Your task to perform on an android device: Open ESPN.com Image 0: 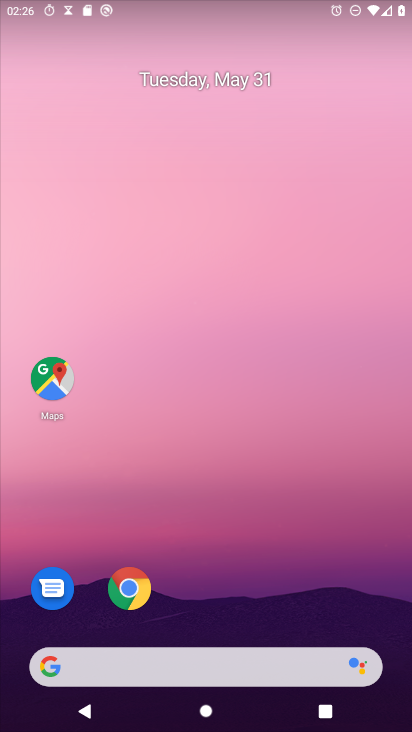
Step 0: drag from (184, 671) to (234, 0)
Your task to perform on an android device: Open ESPN.com Image 1: 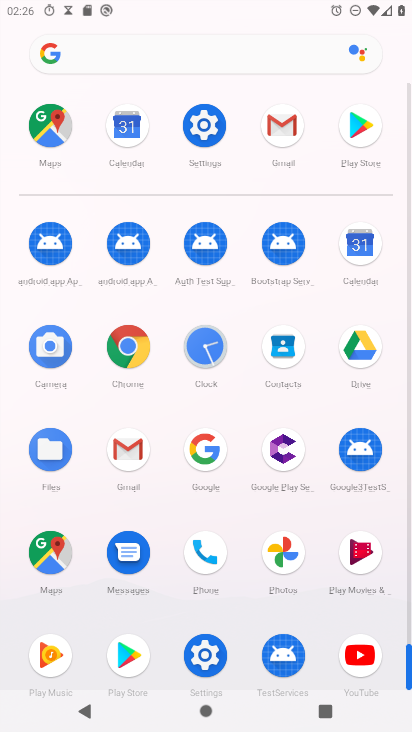
Step 1: click (130, 354)
Your task to perform on an android device: Open ESPN.com Image 2: 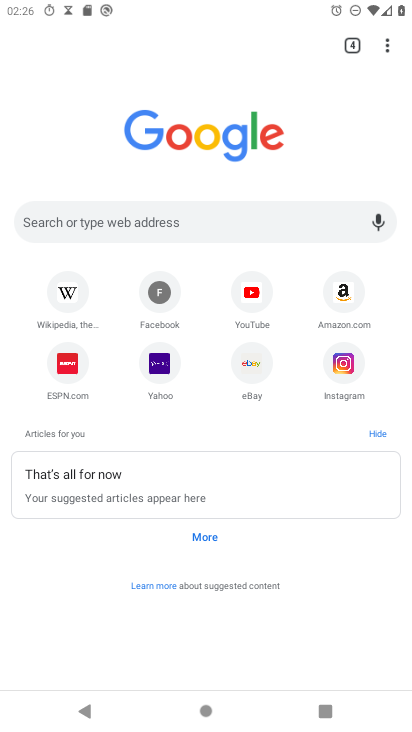
Step 2: click (79, 380)
Your task to perform on an android device: Open ESPN.com Image 3: 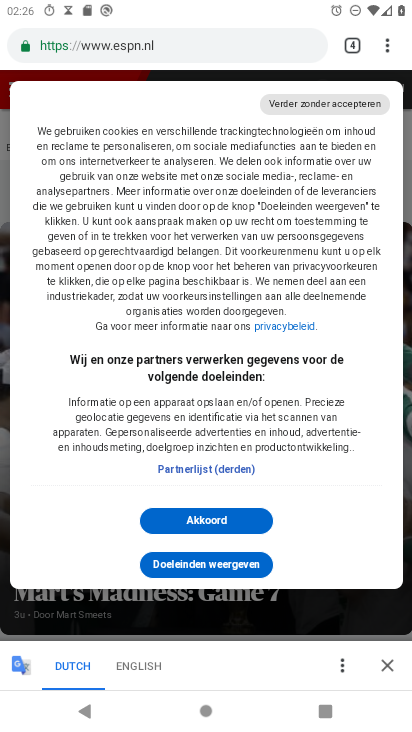
Step 3: task complete